Your task to perform on an android device: install app "Booking.com: Hotels and more" Image 0: 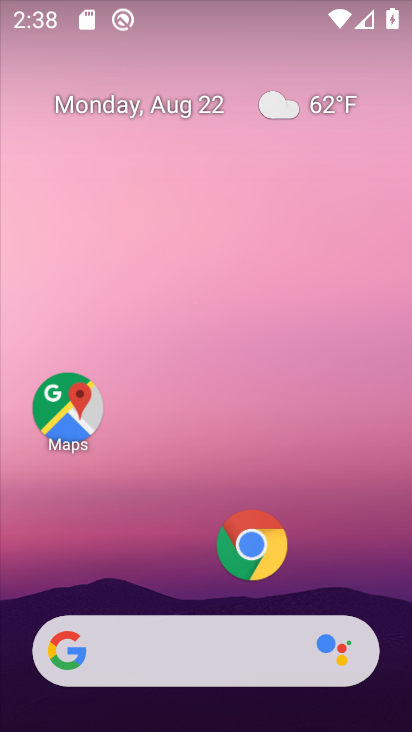
Step 0: drag from (147, 486) to (168, 95)
Your task to perform on an android device: install app "Booking.com: Hotels and more" Image 1: 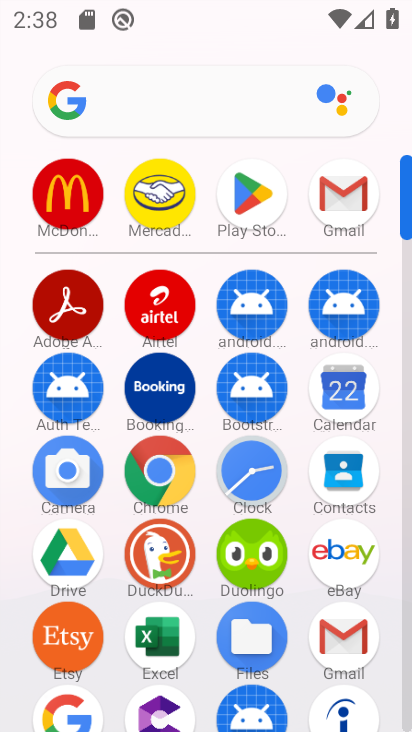
Step 1: click (261, 204)
Your task to perform on an android device: install app "Booking.com: Hotels and more" Image 2: 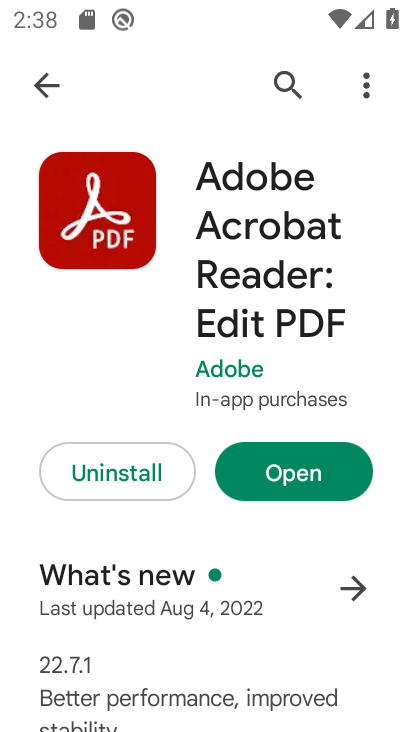
Step 2: click (280, 95)
Your task to perform on an android device: install app "Booking.com: Hotels and more" Image 3: 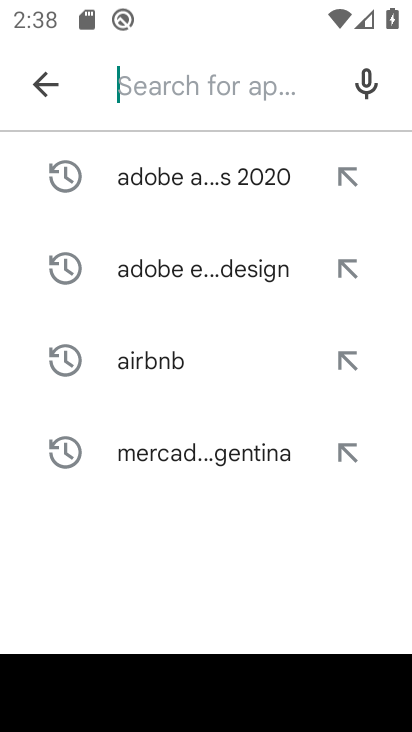
Step 3: click (139, 95)
Your task to perform on an android device: install app "Booking.com: Hotels and more" Image 4: 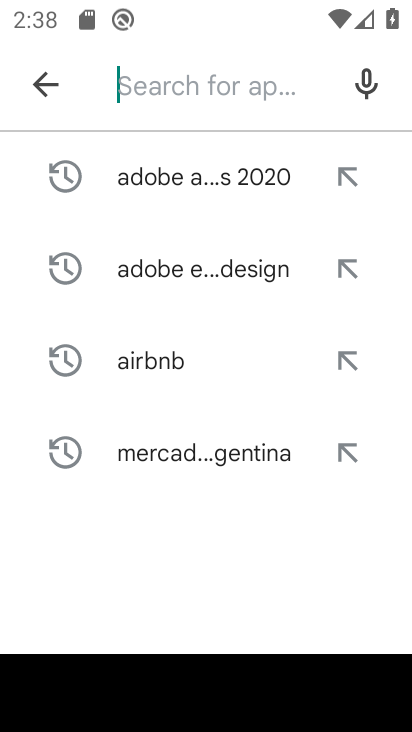
Step 4: type "Booking.com"
Your task to perform on an android device: install app "Booking.com: Hotels and more" Image 5: 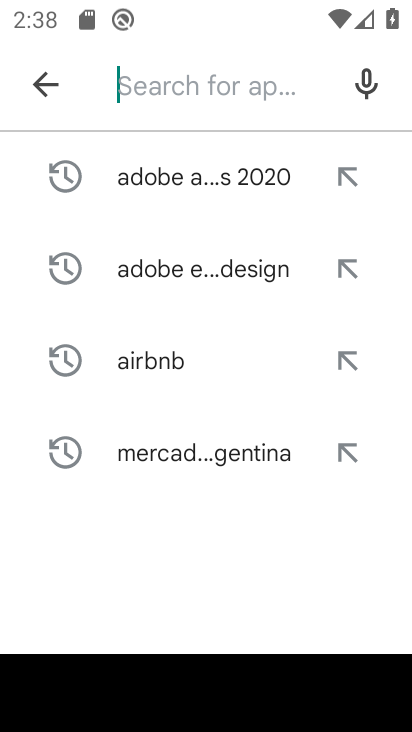
Step 5: click (61, 558)
Your task to perform on an android device: install app "Booking.com: Hotels and more" Image 6: 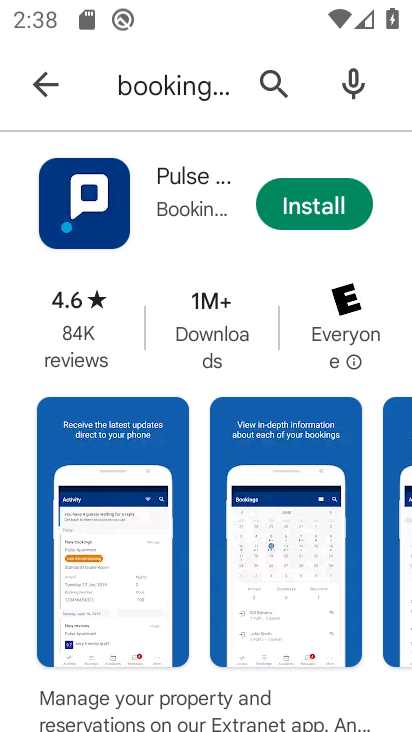
Step 6: click (310, 208)
Your task to perform on an android device: install app "Booking.com: Hotels and more" Image 7: 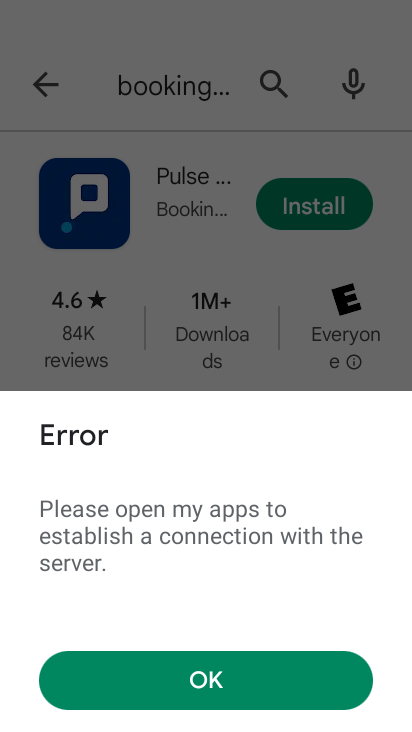
Step 7: click (187, 696)
Your task to perform on an android device: install app "Booking.com: Hotels and more" Image 8: 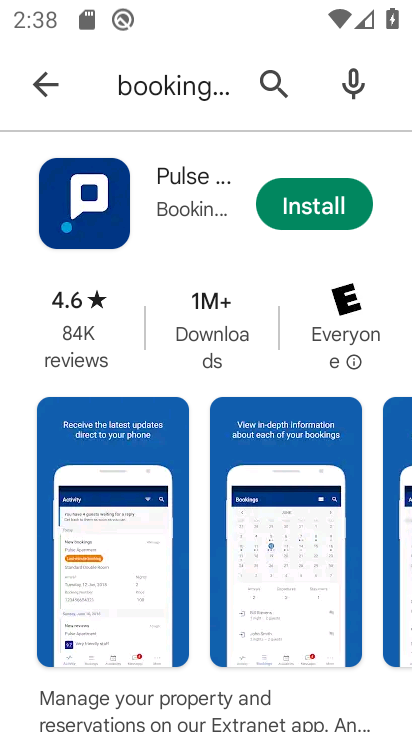
Step 8: click (337, 206)
Your task to perform on an android device: install app "Booking.com: Hotels and more" Image 9: 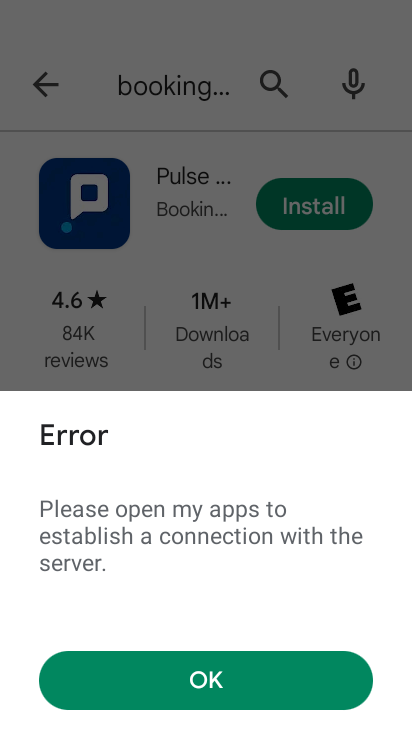
Step 9: click (179, 285)
Your task to perform on an android device: install app "Booking.com: Hotels and more" Image 10: 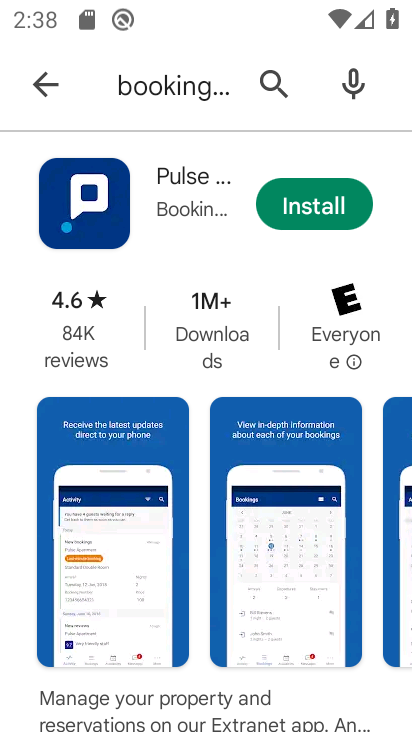
Step 10: click (188, 671)
Your task to perform on an android device: install app "Booking.com: Hotels and more" Image 11: 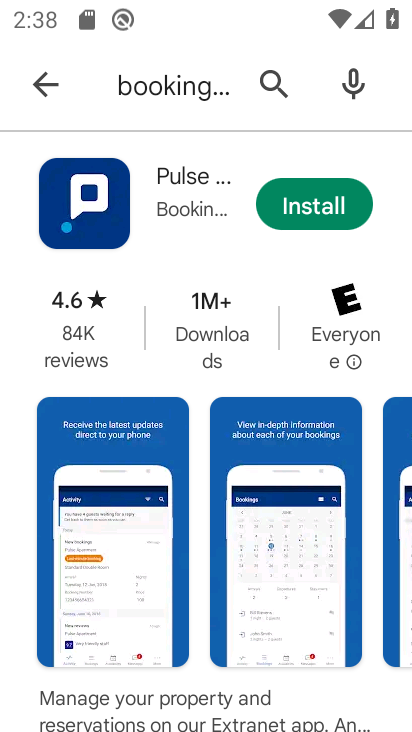
Step 11: drag from (188, 665) to (258, 185)
Your task to perform on an android device: install app "Booking.com: Hotels and more" Image 12: 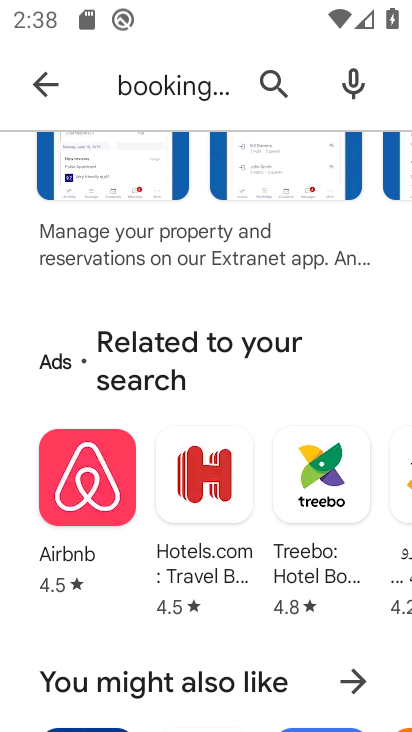
Step 12: drag from (209, 605) to (239, 160)
Your task to perform on an android device: install app "Booking.com: Hotels and more" Image 13: 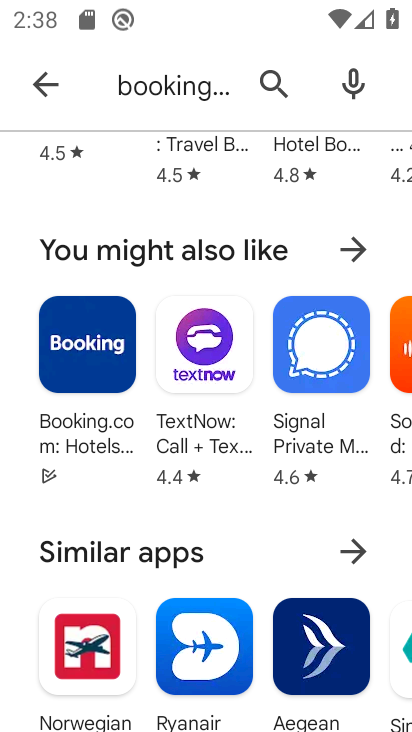
Step 13: click (93, 353)
Your task to perform on an android device: install app "Booking.com: Hotels and more" Image 14: 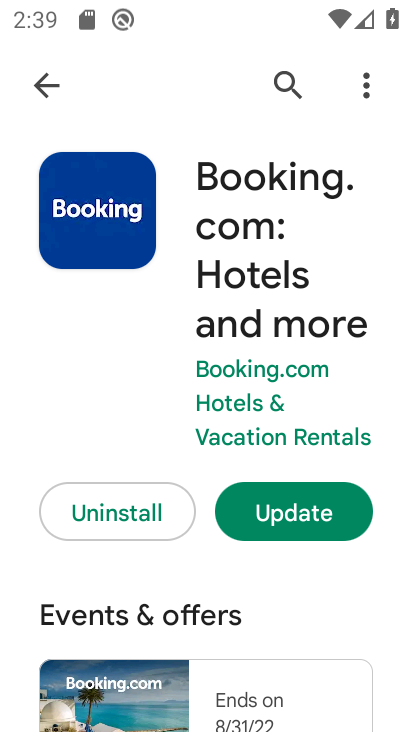
Step 14: task complete